Your task to perform on an android device: show emergency info Image 0: 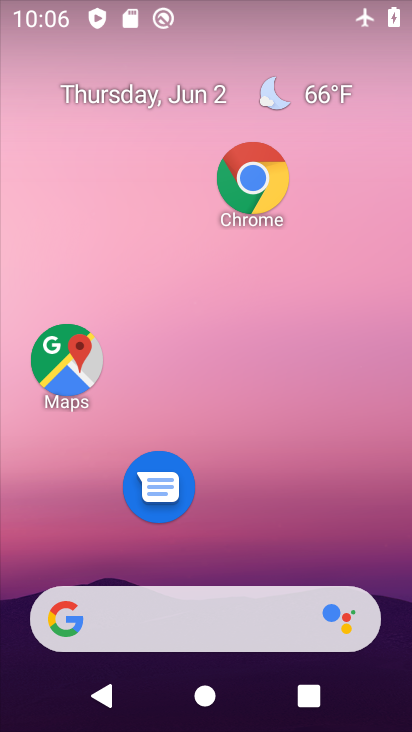
Step 0: drag from (255, 729) to (226, 60)
Your task to perform on an android device: show emergency info Image 1: 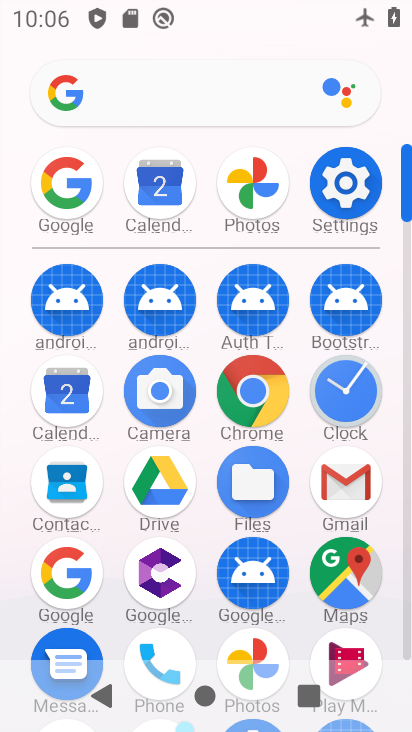
Step 1: click (346, 186)
Your task to perform on an android device: show emergency info Image 2: 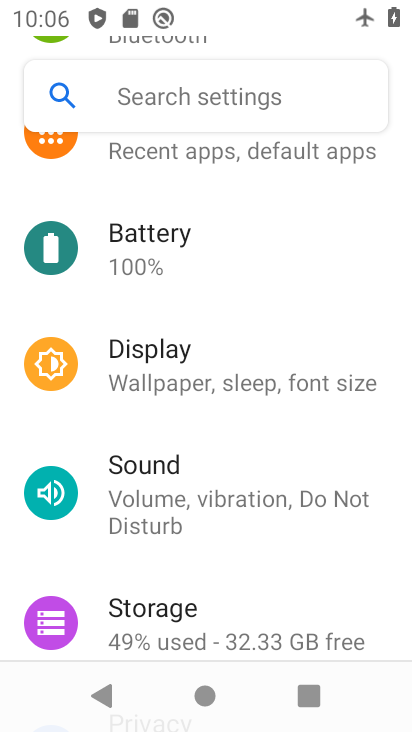
Step 2: drag from (191, 643) to (119, 112)
Your task to perform on an android device: show emergency info Image 3: 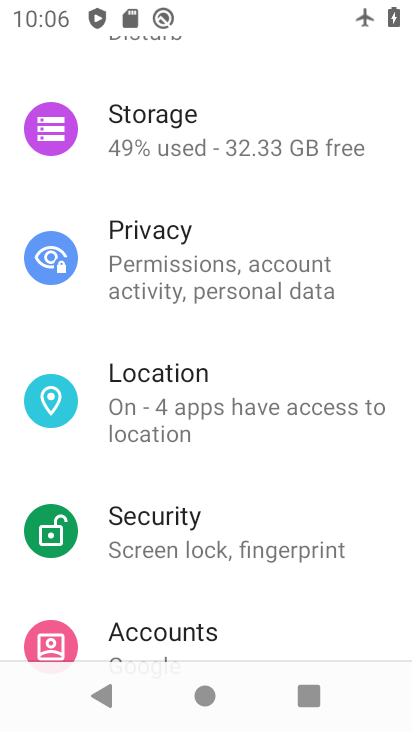
Step 3: drag from (200, 641) to (198, 281)
Your task to perform on an android device: show emergency info Image 4: 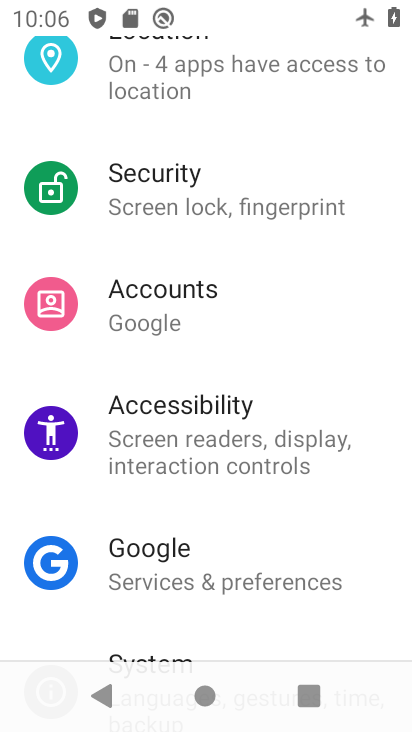
Step 4: drag from (199, 633) to (203, 215)
Your task to perform on an android device: show emergency info Image 5: 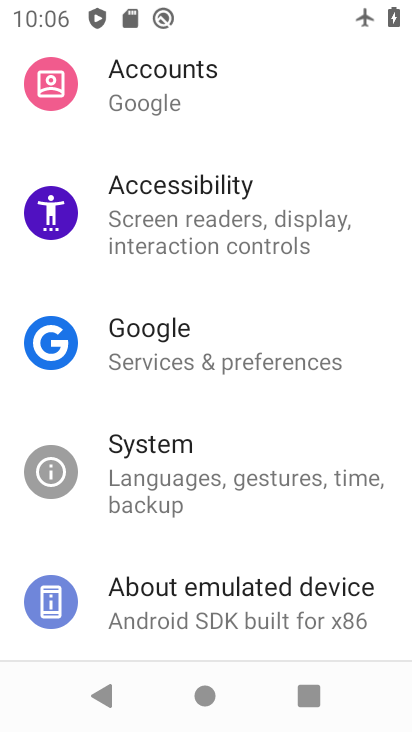
Step 5: click (204, 613)
Your task to perform on an android device: show emergency info Image 6: 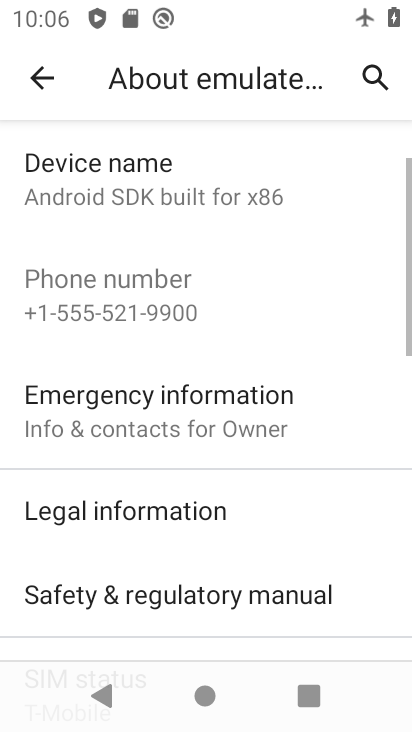
Step 6: click (189, 416)
Your task to perform on an android device: show emergency info Image 7: 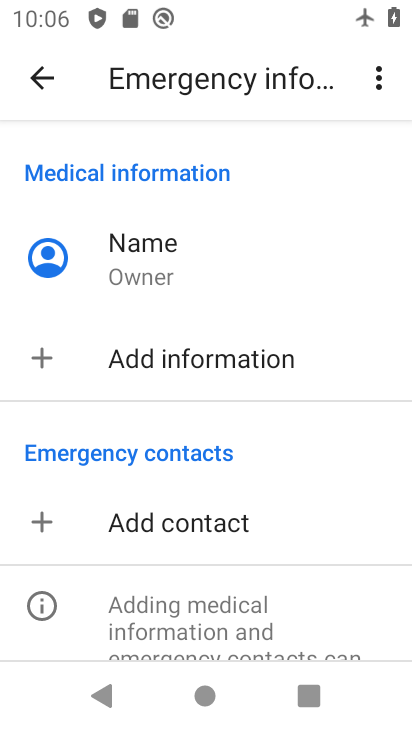
Step 7: task complete